Your task to perform on an android device: Go to CNN.com Image 0: 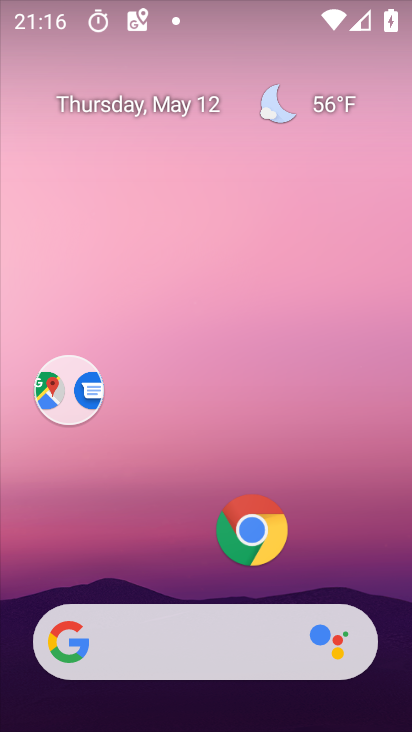
Step 0: drag from (177, 573) to (207, 42)
Your task to perform on an android device: Go to CNN.com Image 1: 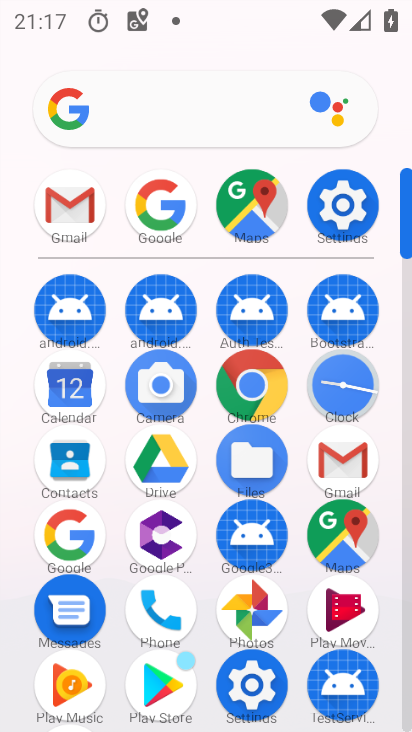
Step 1: click (75, 534)
Your task to perform on an android device: Go to CNN.com Image 2: 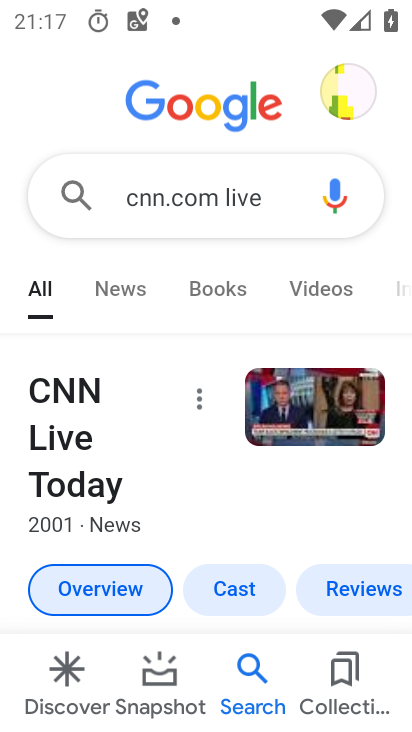
Step 2: task complete